Your task to perform on an android device: toggle sleep mode Image 0: 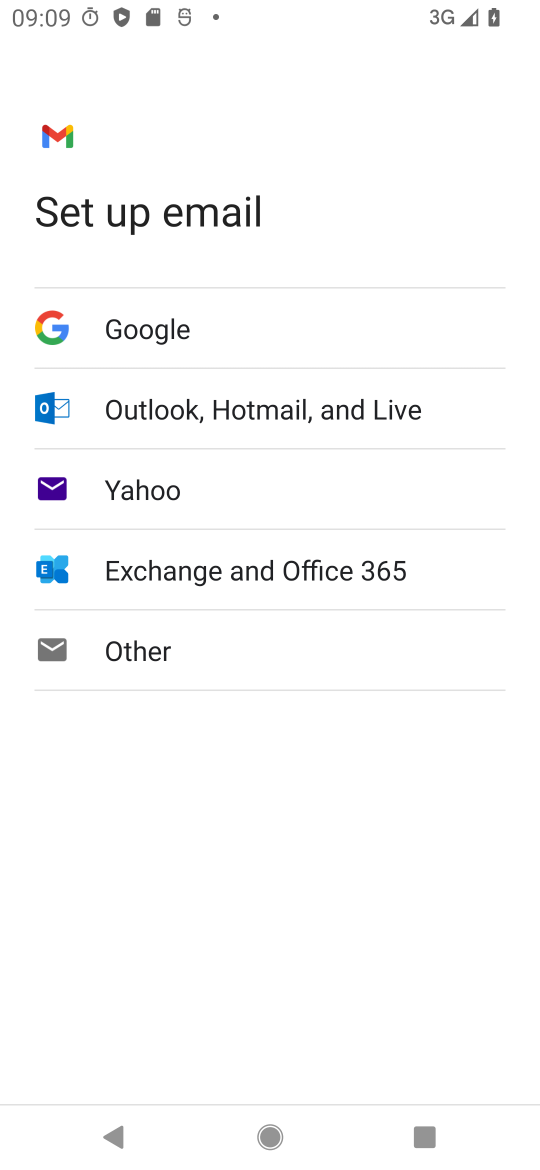
Step 0: press home button
Your task to perform on an android device: toggle sleep mode Image 1: 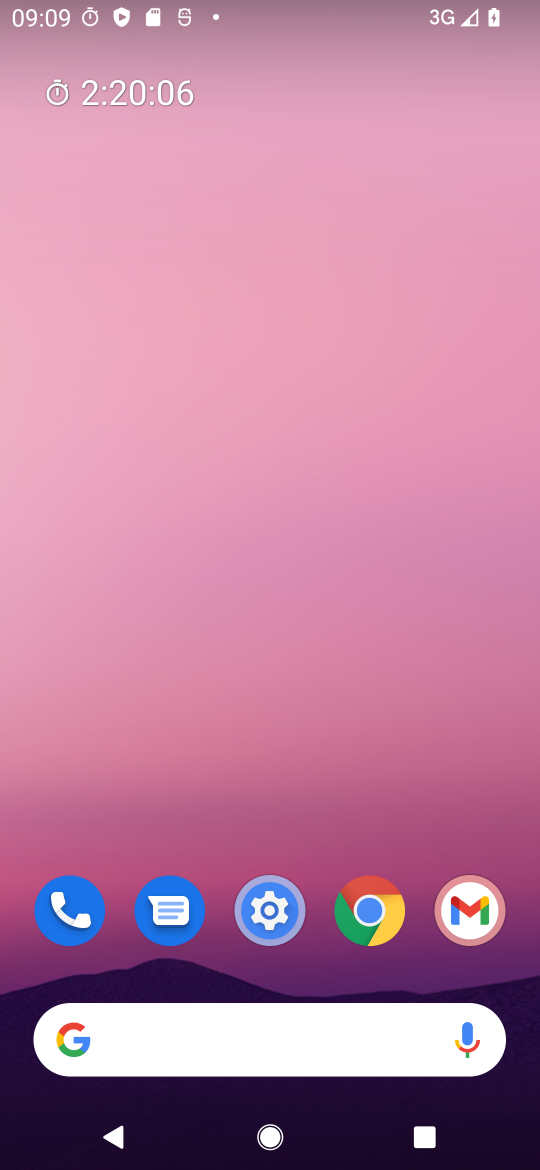
Step 1: drag from (269, 1006) to (256, 20)
Your task to perform on an android device: toggle sleep mode Image 2: 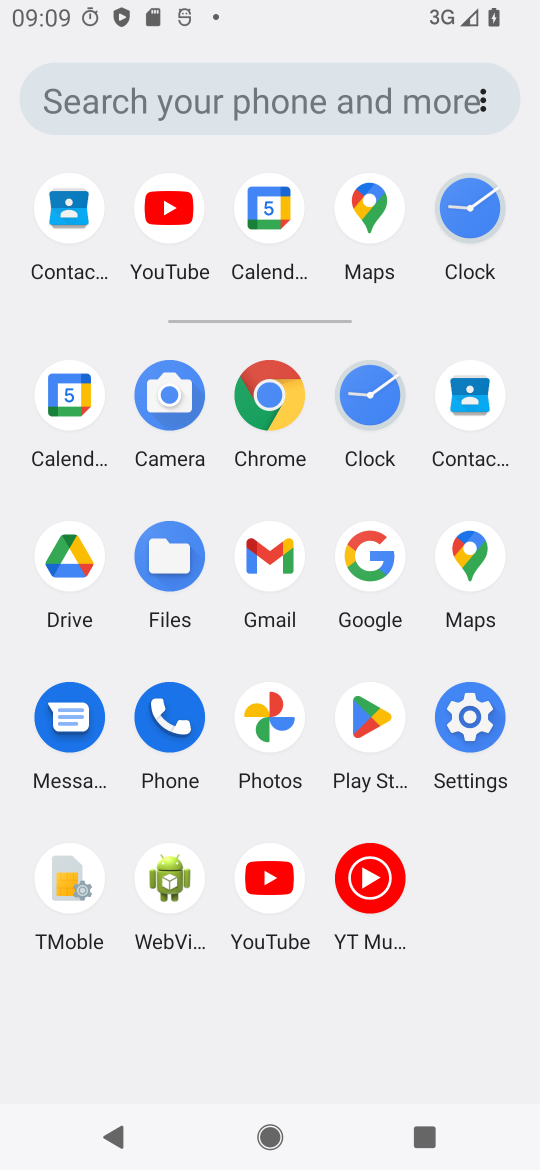
Step 2: click (470, 695)
Your task to perform on an android device: toggle sleep mode Image 3: 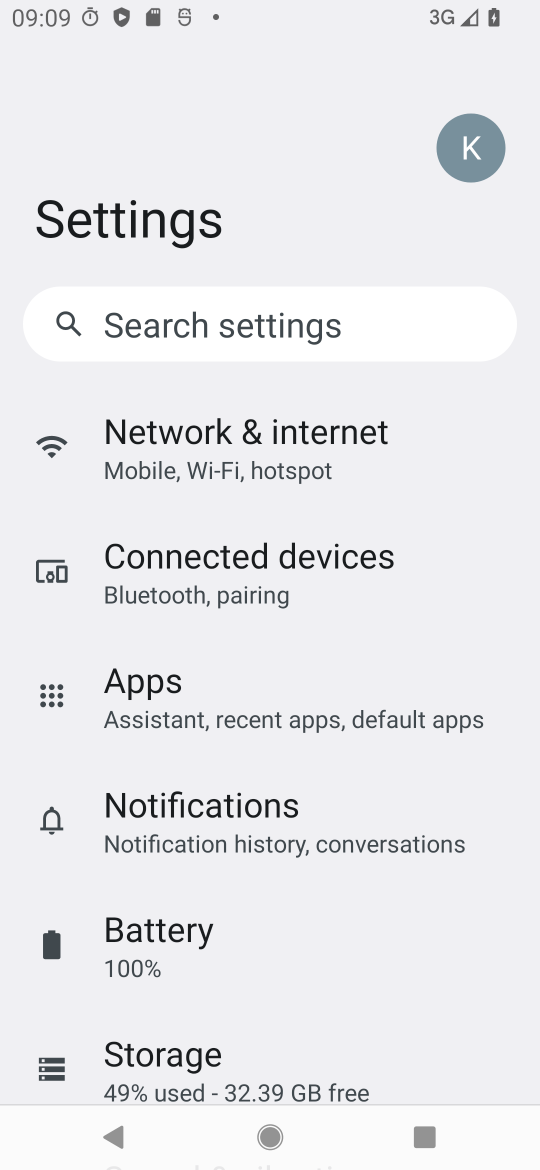
Step 3: task complete